Your task to perform on an android device: delete a single message in the gmail app Image 0: 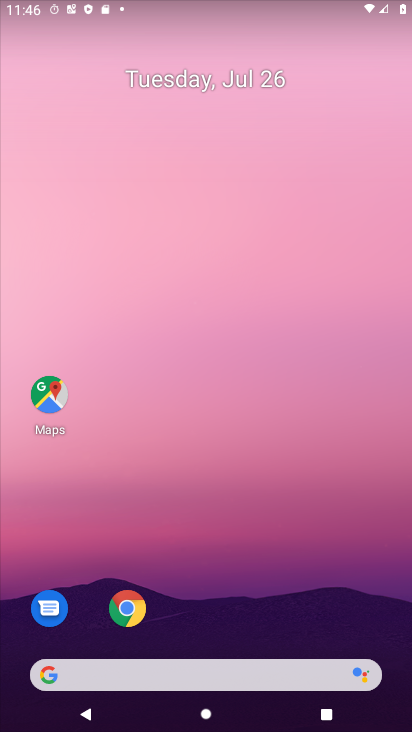
Step 0: drag from (176, 632) to (146, 94)
Your task to perform on an android device: delete a single message in the gmail app Image 1: 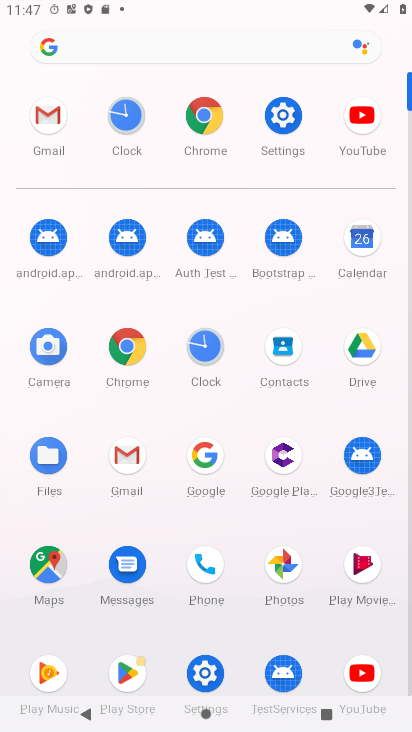
Step 1: click (44, 114)
Your task to perform on an android device: delete a single message in the gmail app Image 2: 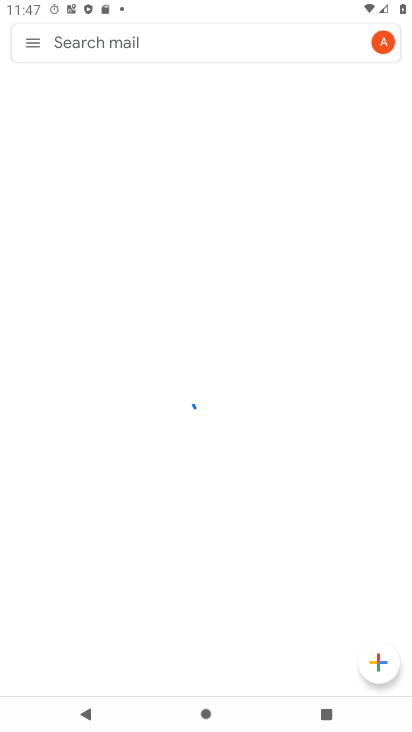
Step 2: click (34, 42)
Your task to perform on an android device: delete a single message in the gmail app Image 3: 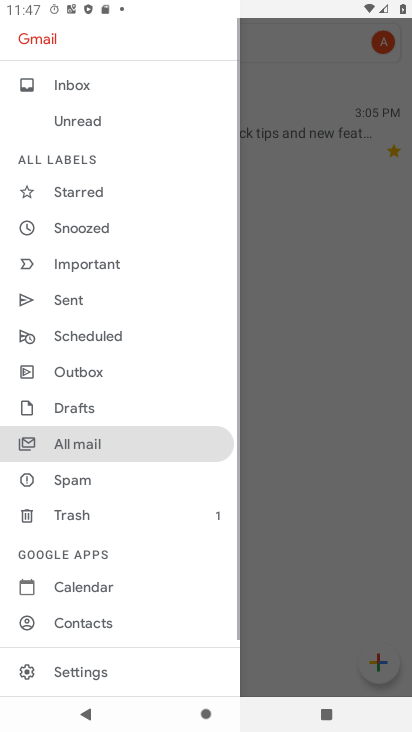
Step 3: click (267, 168)
Your task to perform on an android device: delete a single message in the gmail app Image 4: 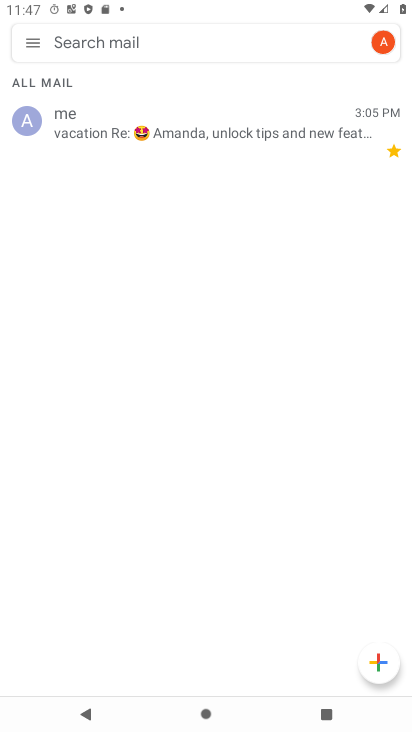
Step 4: click (265, 143)
Your task to perform on an android device: delete a single message in the gmail app Image 5: 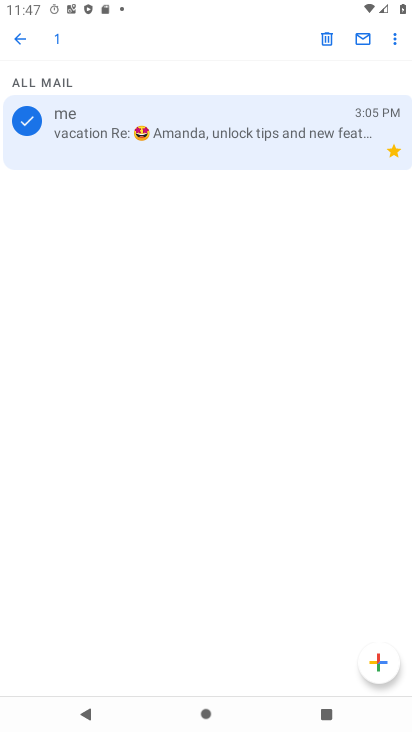
Step 5: click (322, 34)
Your task to perform on an android device: delete a single message in the gmail app Image 6: 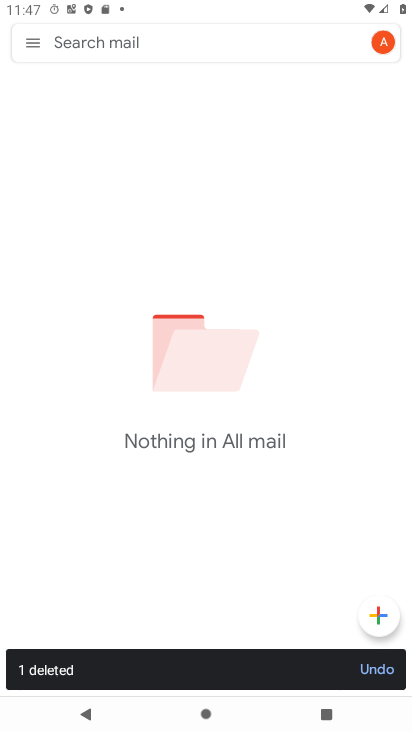
Step 6: task complete